Your task to perform on an android device: add a contact in the contacts app Image 0: 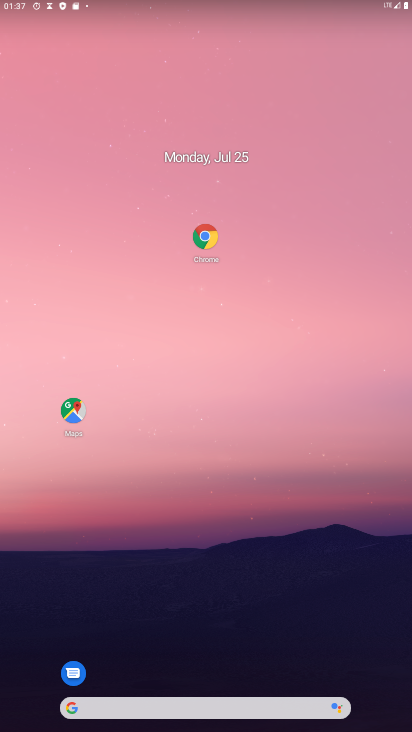
Step 0: drag from (238, 699) to (303, 3)
Your task to perform on an android device: add a contact in the contacts app Image 1: 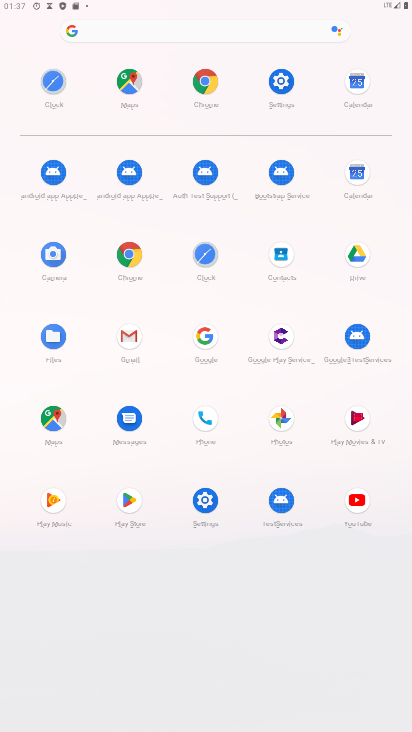
Step 1: click (279, 259)
Your task to perform on an android device: add a contact in the contacts app Image 2: 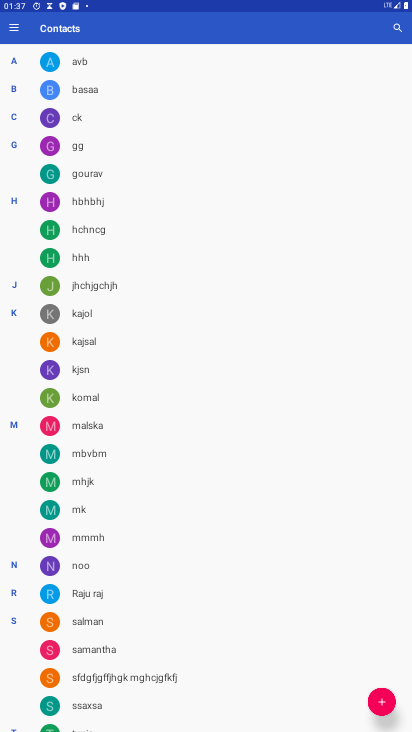
Step 2: click (385, 698)
Your task to perform on an android device: add a contact in the contacts app Image 3: 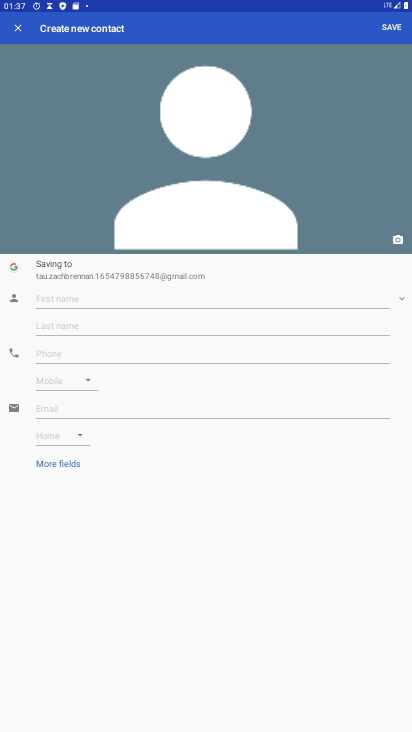
Step 3: click (148, 294)
Your task to perform on an android device: add a contact in the contacts app Image 4: 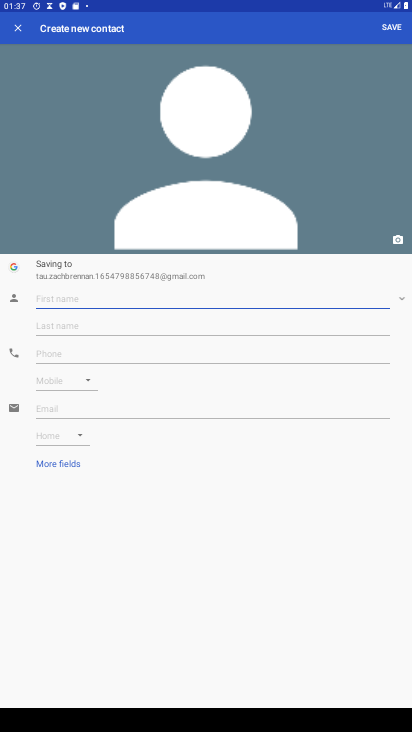
Step 4: type "kajal"
Your task to perform on an android device: add a contact in the contacts app Image 5: 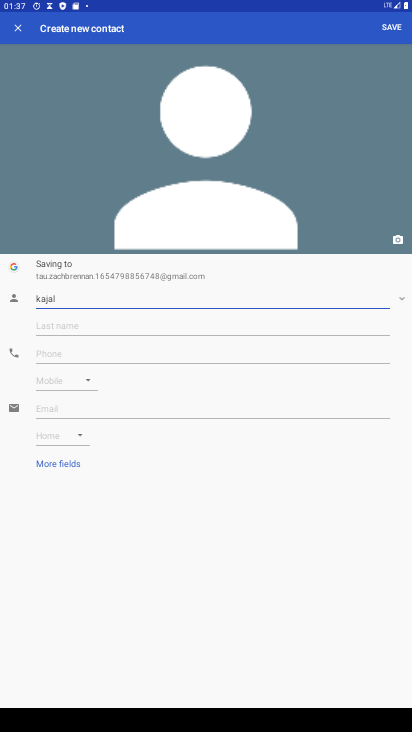
Step 5: click (66, 356)
Your task to perform on an android device: add a contact in the contacts app Image 6: 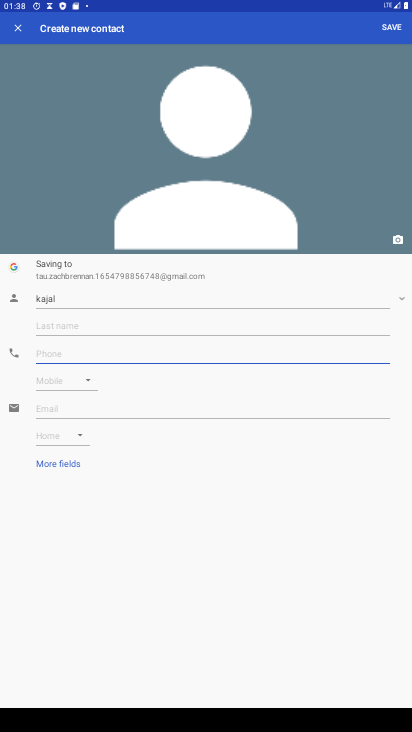
Step 6: type "98767898767"
Your task to perform on an android device: add a contact in the contacts app Image 7: 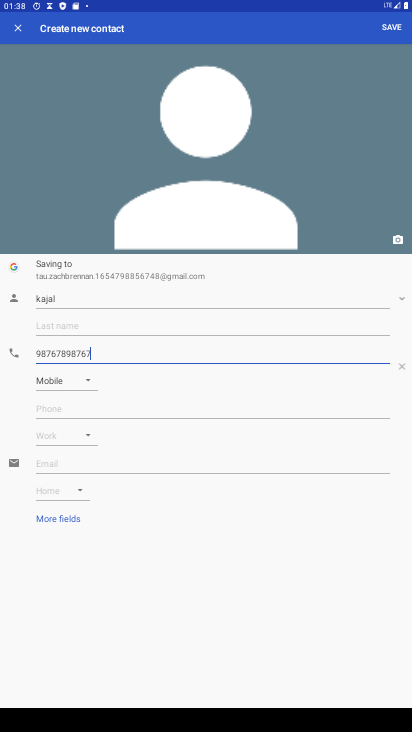
Step 7: click (392, 24)
Your task to perform on an android device: add a contact in the contacts app Image 8: 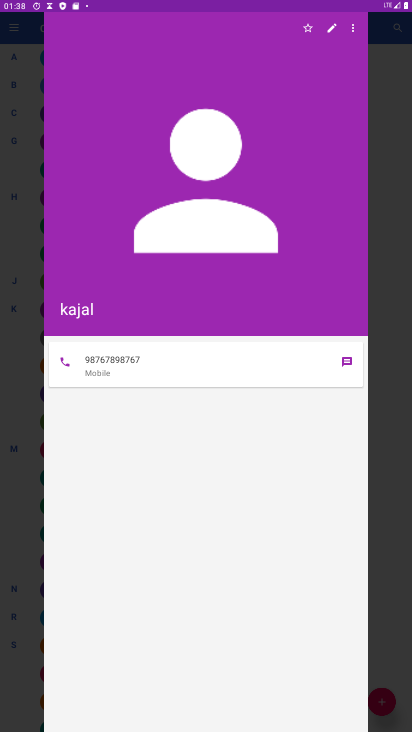
Step 8: task complete